Your task to perform on an android device: toggle improve location accuracy Image 0: 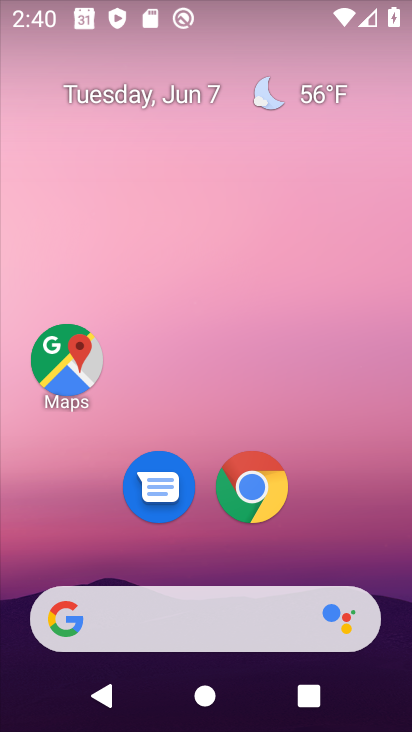
Step 0: drag from (353, 516) to (319, 61)
Your task to perform on an android device: toggle improve location accuracy Image 1: 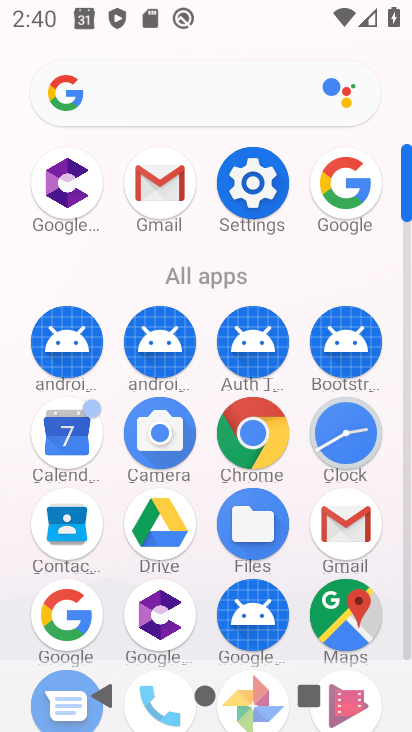
Step 1: click (246, 176)
Your task to perform on an android device: toggle improve location accuracy Image 2: 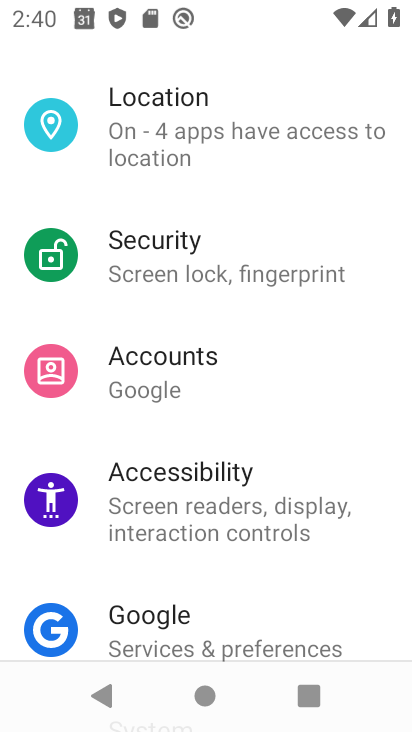
Step 2: drag from (229, 585) to (195, 633)
Your task to perform on an android device: toggle improve location accuracy Image 3: 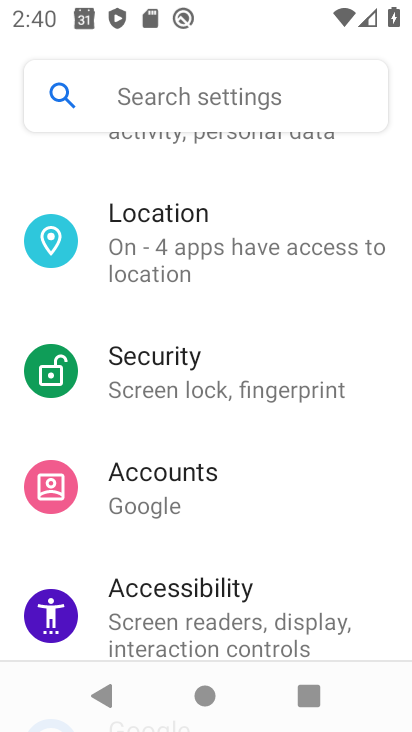
Step 3: click (176, 223)
Your task to perform on an android device: toggle improve location accuracy Image 4: 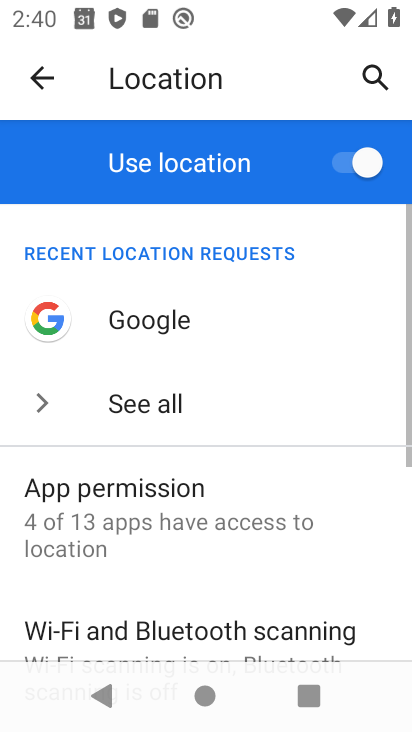
Step 4: drag from (228, 555) to (250, 211)
Your task to perform on an android device: toggle improve location accuracy Image 5: 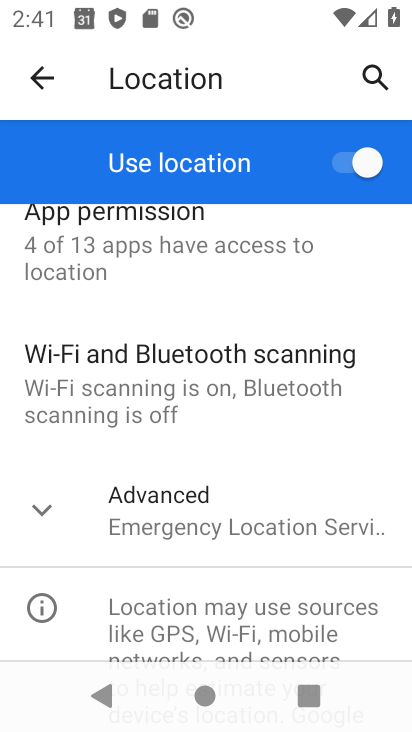
Step 5: click (47, 518)
Your task to perform on an android device: toggle improve location accuracy Image 6: 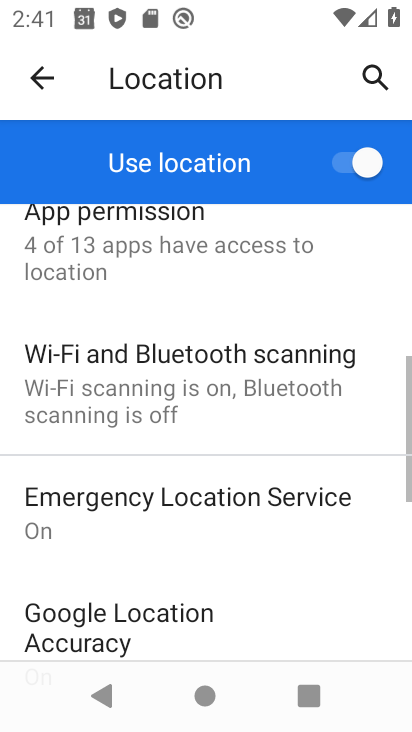
Step 6: drag from (315, 603) to (315, 500)
Your task to perform on an android device: toggle improve location accuracy Image 7: 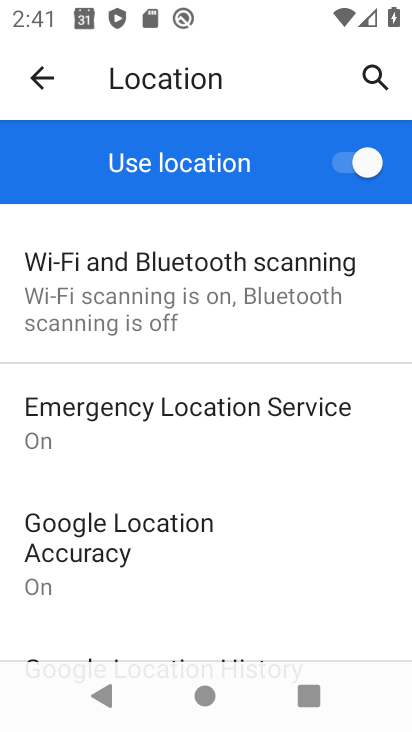
Step 7: click (119, 538)
Your task to perform on an android device: toggle improve location accuracy Image 8: 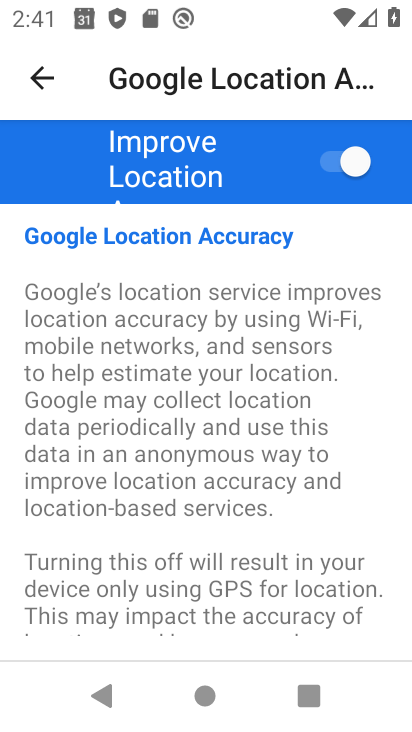
Step 8: click (335, 162)
Your task to perform on an android device: toggle improve location accuracy Image 9: 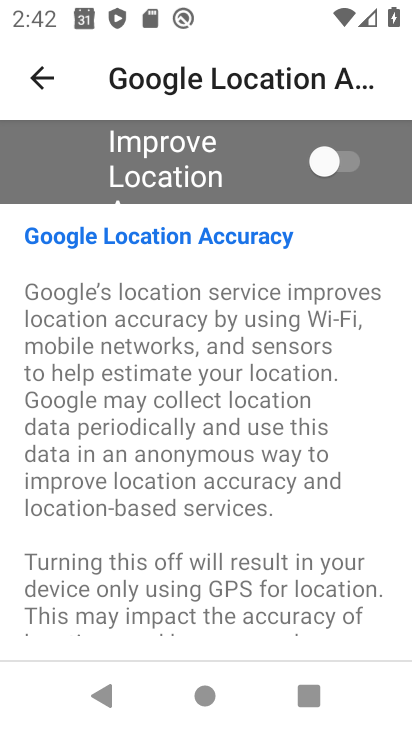
Step 9: task complete